Your task to perform on an android device: uninstall "Viber Messenger" Image 0: 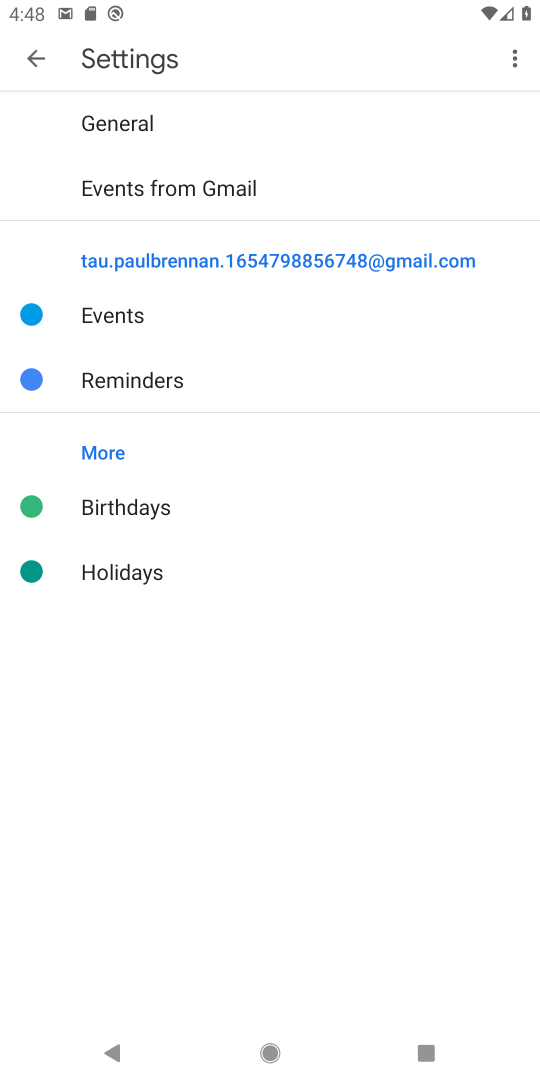
Step 0: press home button
Your task to perform on an android device: uninstall "Viber Messenger" Image 1: 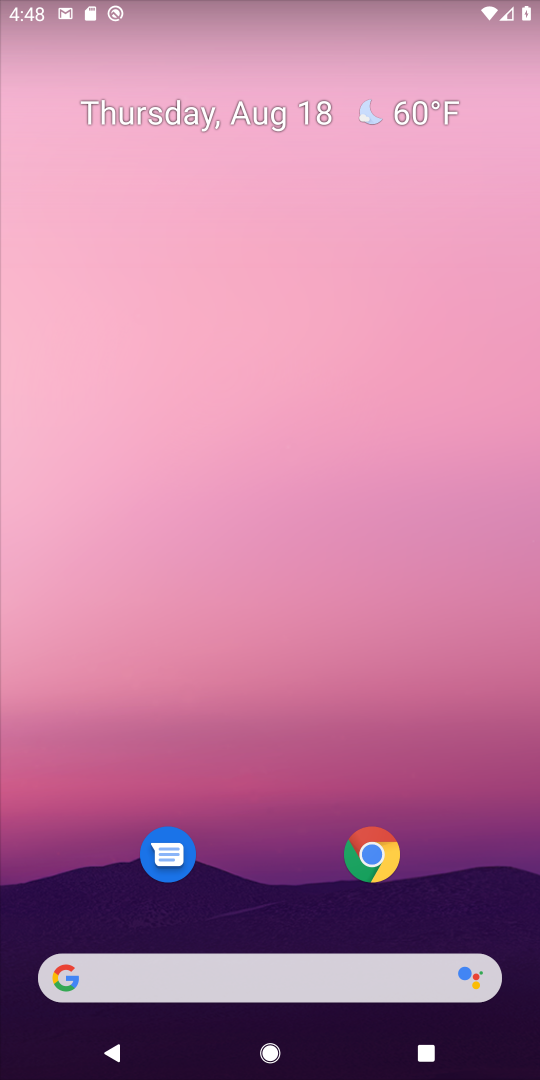
Step 1: drag from (245, 913) to (260, 146)
Your task to perform on an android device: uninstall "Viber Messenger" Image 2: 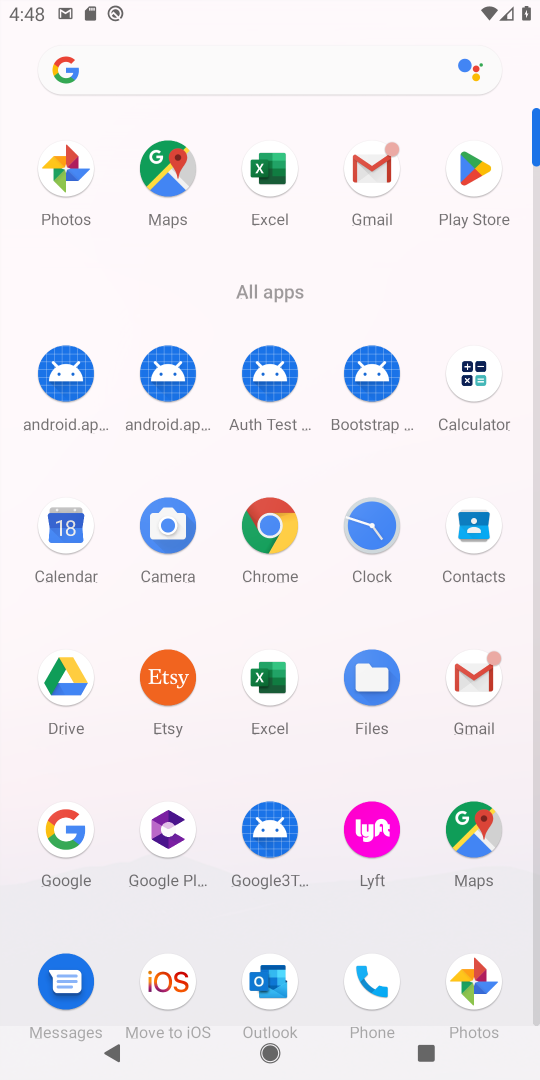
Step 2: click (477, 175)
Your task to perform on an android device: uninstall "Viber Messenger" Image 3: 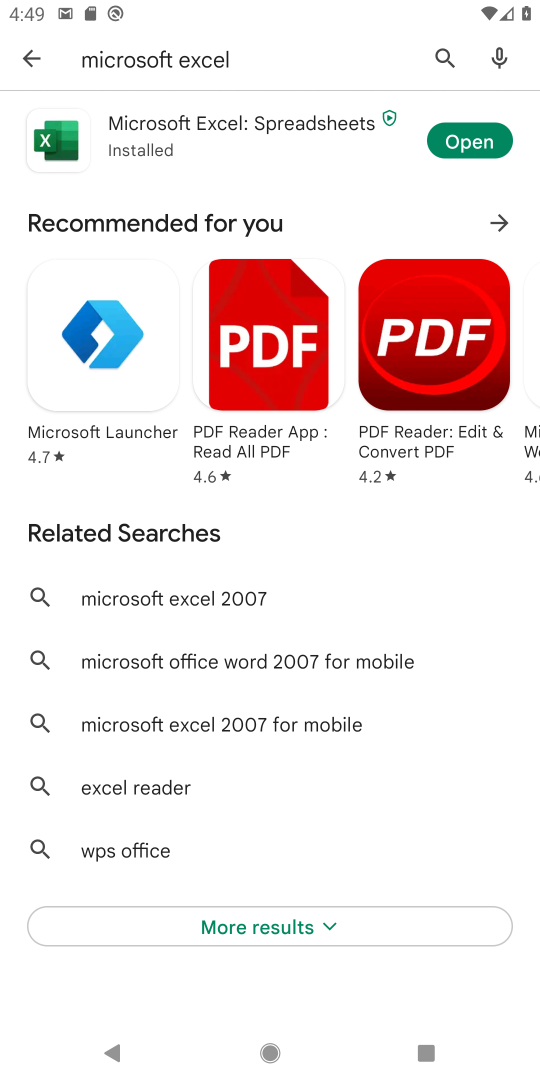
Step 3: click (24, 61)
Your task to perform on an android device: uninstall "Viber Messenger" Image 4: 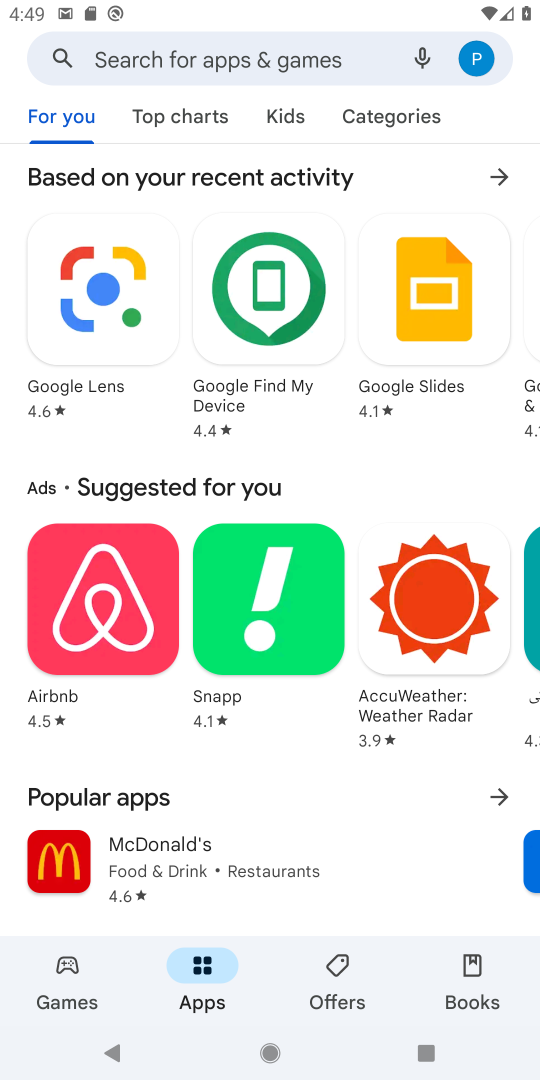
Step 4: click (222, 75)
Your task to perform on an android device: uninstall "Viber Messenger" Image 5: 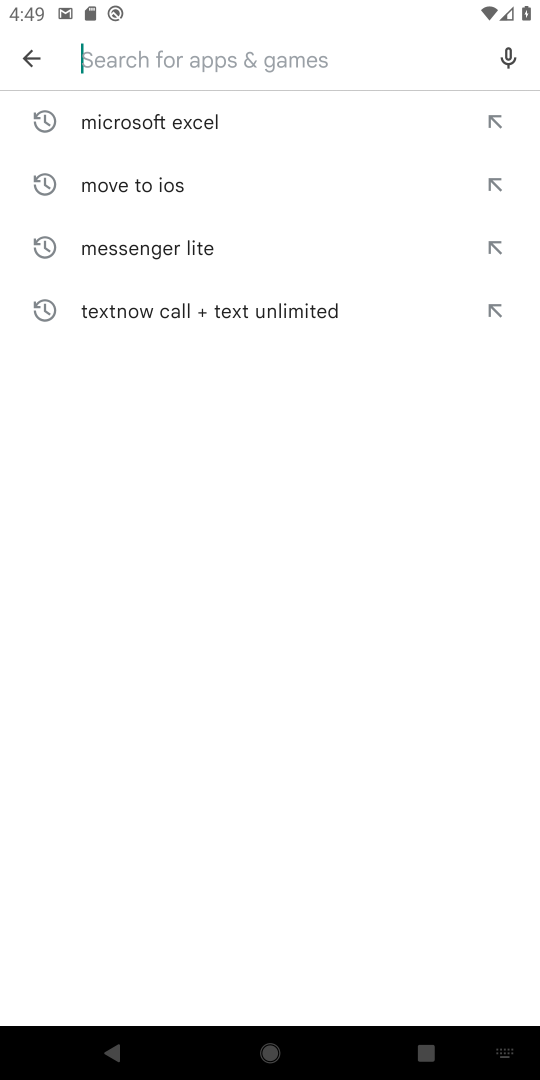
Step 5: type "Viber Messenger"
Your task to perform on an android device: uninstall "Viber Messenger" Image 6: 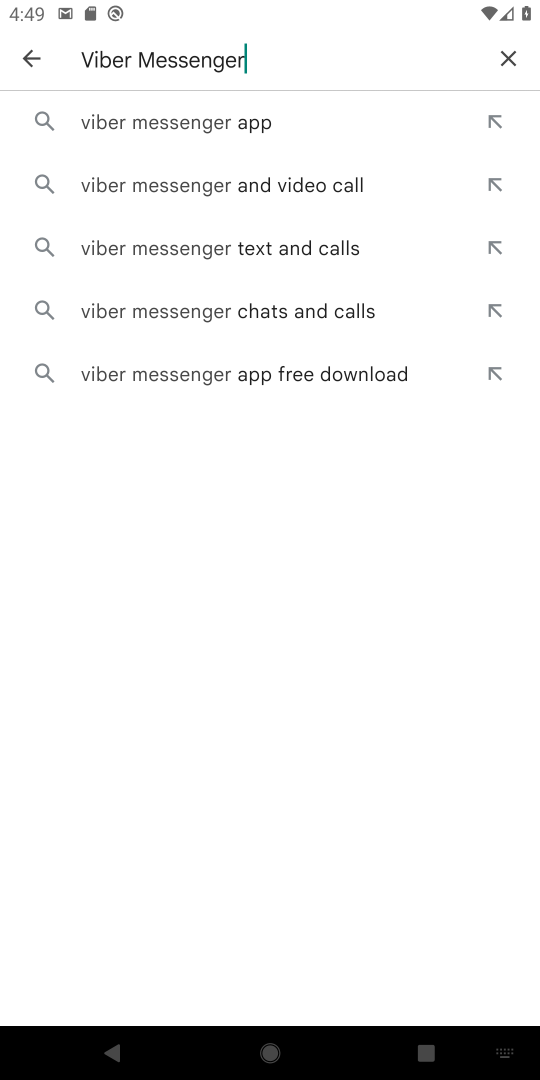
Step 6: click (152, 115)
Your task to perform on an android device: uninstall "Viber Messenger" Image 7: 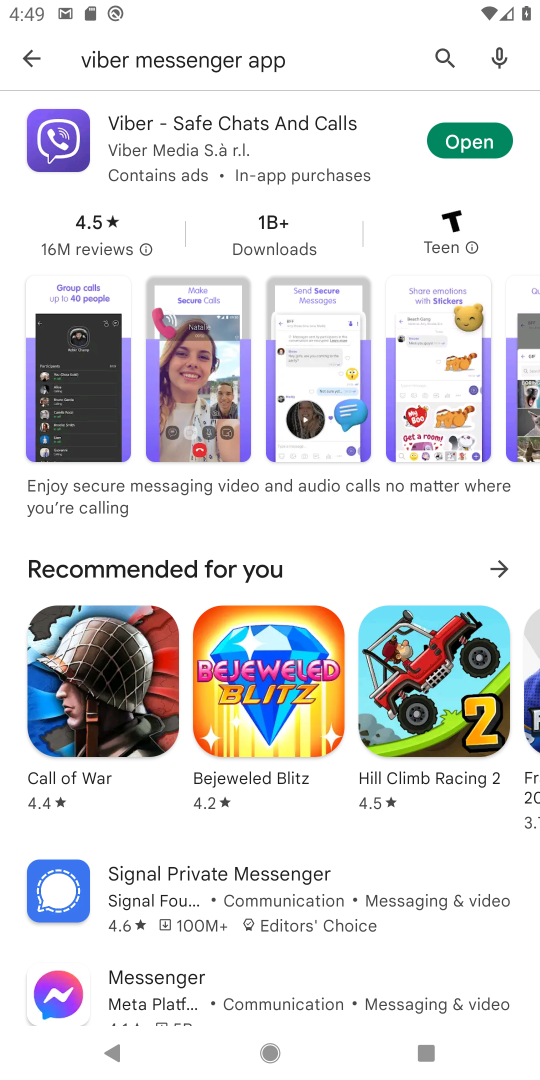
Step 7: click (464, 141)
Your task to perform on an android device: uninstall "Viber Messenger" Image 8: 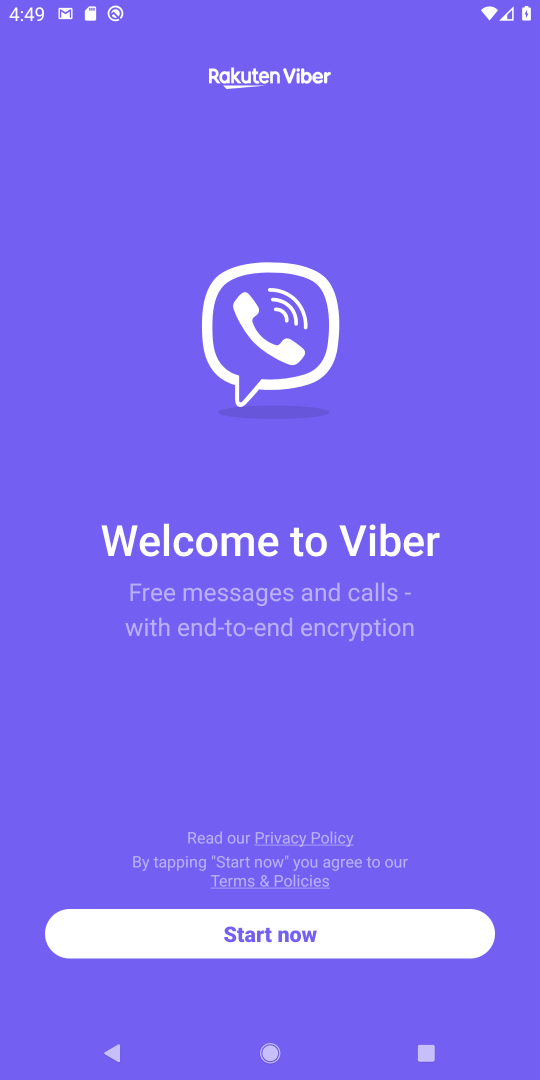
Step 8: press back button
Your task to perform on an android device: uninstall "Viber Messenger" Image 9: 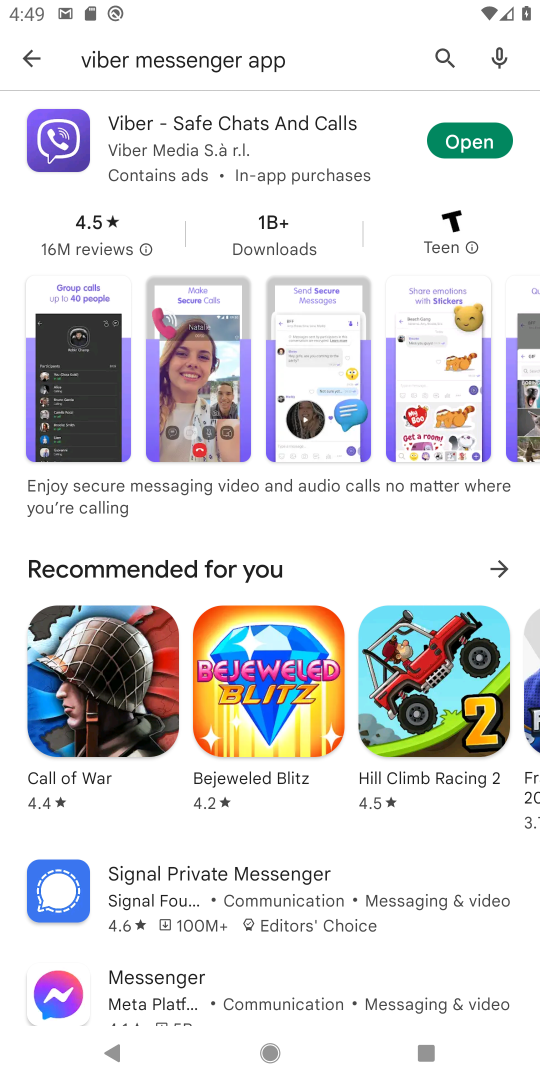
Step 9: click (149, 160)
Your task to perform on an android device: uninstall "Viber Messenger" Image 10: 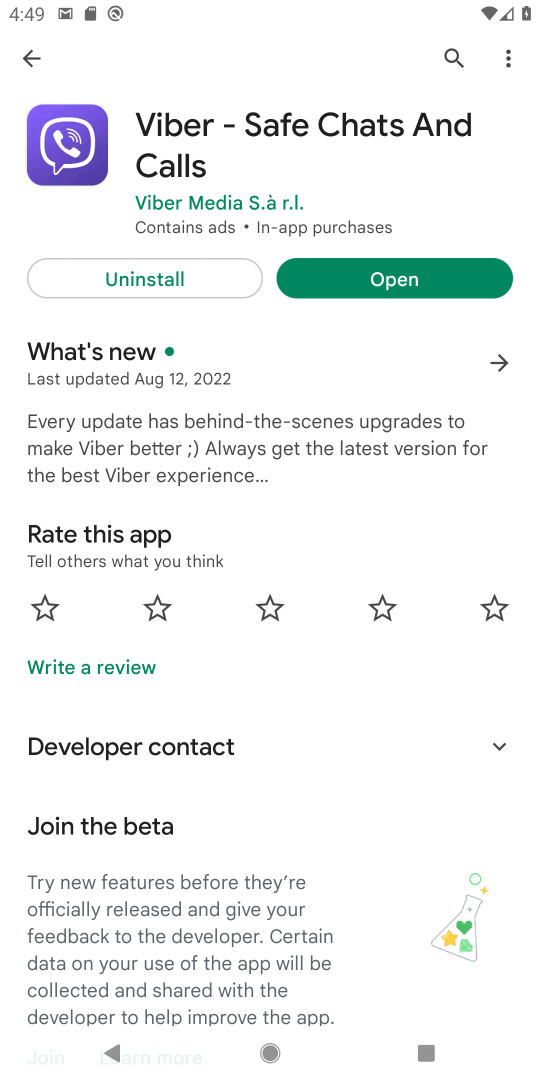
Step 10: click (128, 276)
Your task to perform on an android device: uninstall "Viber Messenger" Image 11: 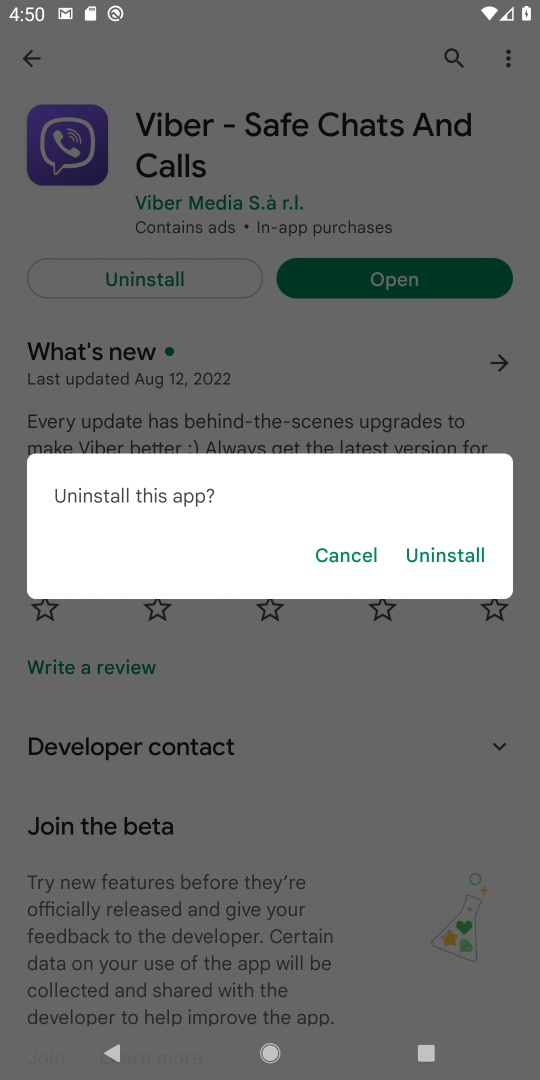
Step 11: click (413, 553)
Your task to perform on an android device: uninstall "Viber Messenger" Image 12: 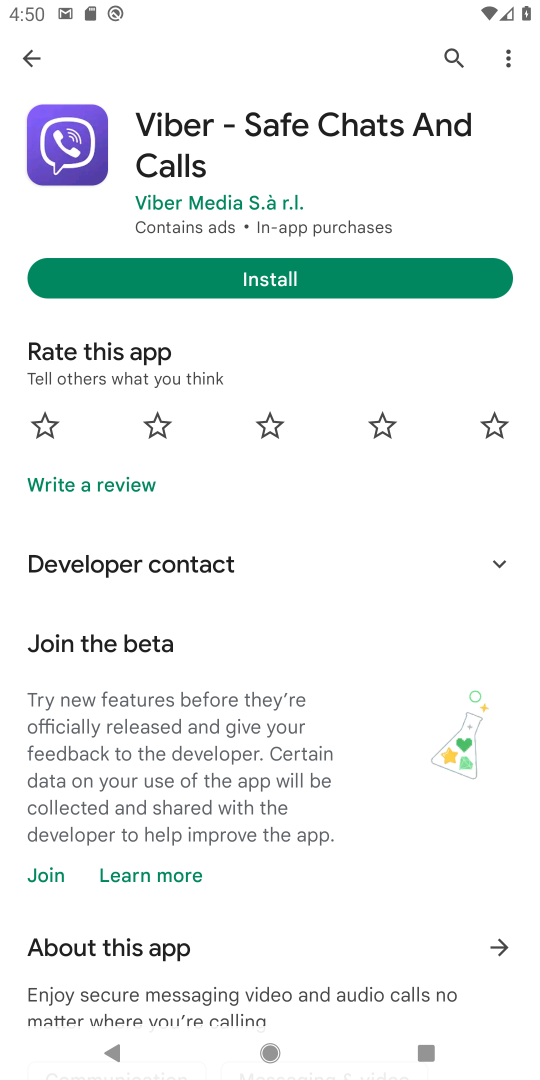
Step 12: task complete